Your task to perform on an android device: open app "DoorDash - Food Delivery" (install if not already installed) and enter user name: "Richard@outlook.com" and password: "informally" Image 0: 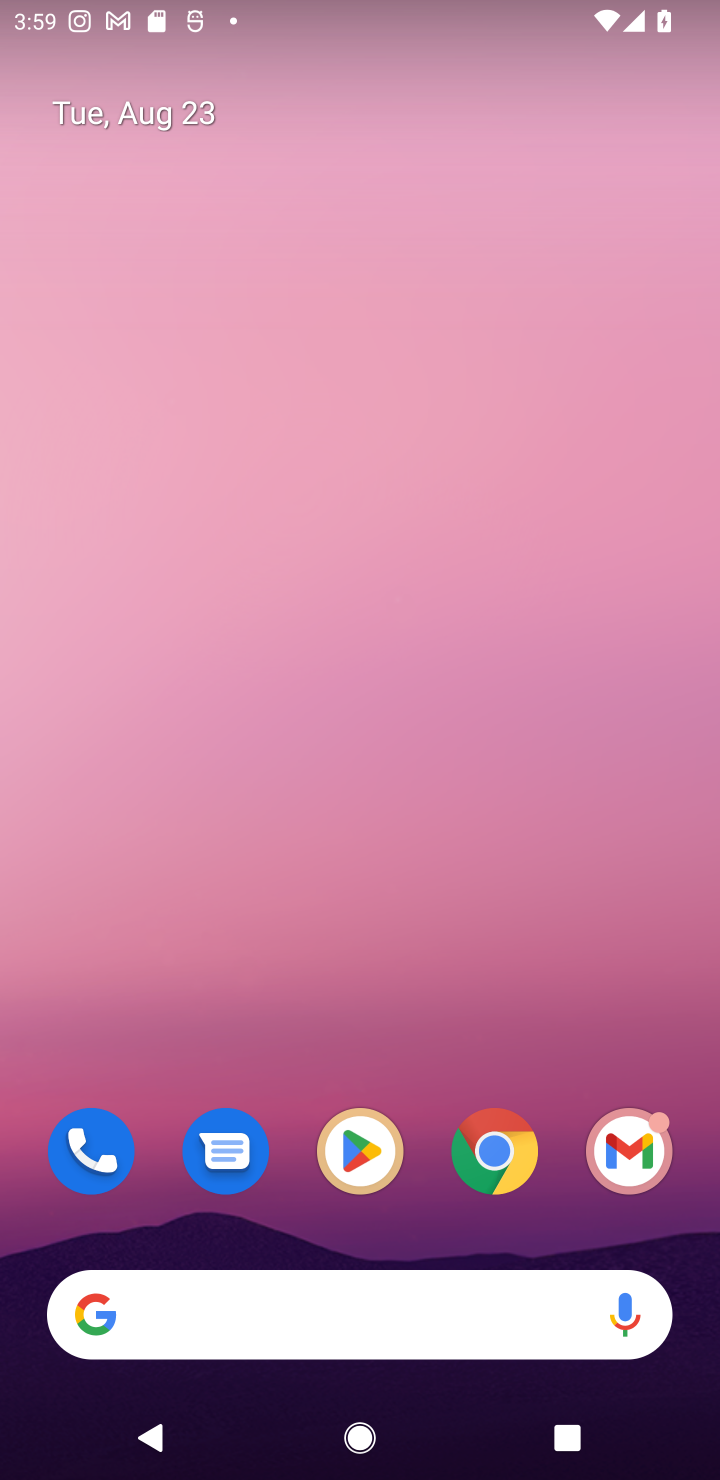
Step 0: click (357, 1160)
Your task to perform on an android device: open app "DoorDash - Food Delivery" (install if not already installed) and enter user name: "Richard@outlook.com" and password: "informally" Image 1: 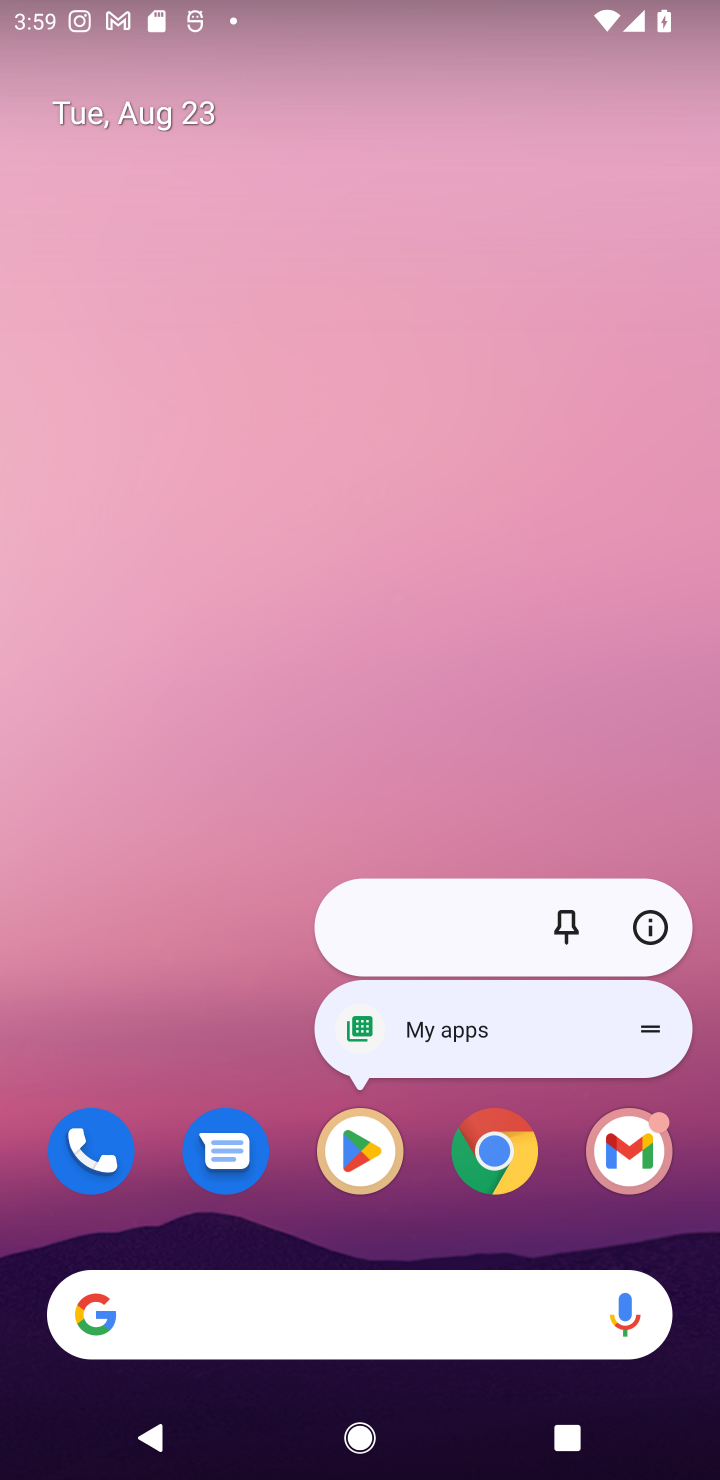
Step 1: click (355, 1165)
Your task to perform on an android device: open app "DoorDash - Food Delivery" (install if not already installed) and enter user name: "Richard@outlook.com" and password: "informally" Image 2: 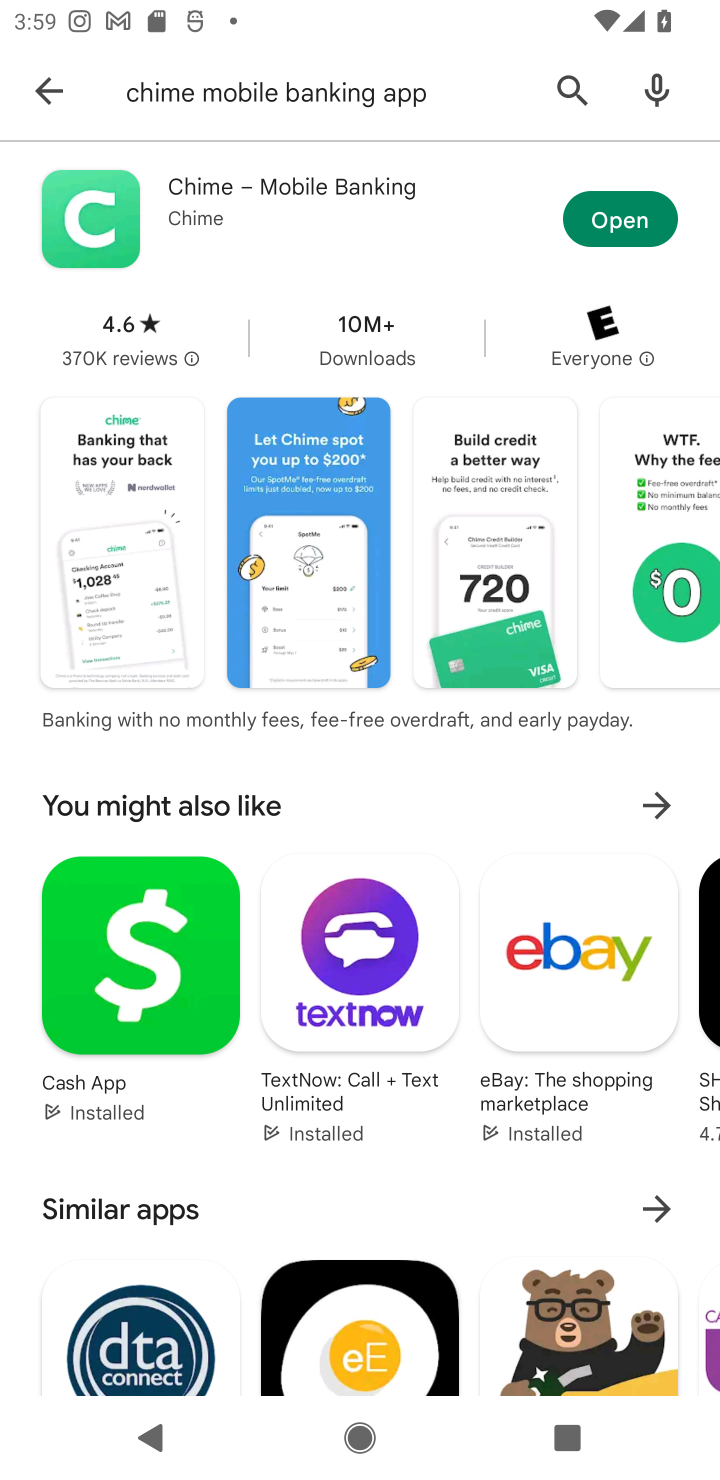
Step 2: click (574, 80)
Your task to perform on an android device: open app "DoorDash - Food Delivery" (install if not already installed) and enter user name: "Richard@outlook.com" and password: "informally" Image 3: 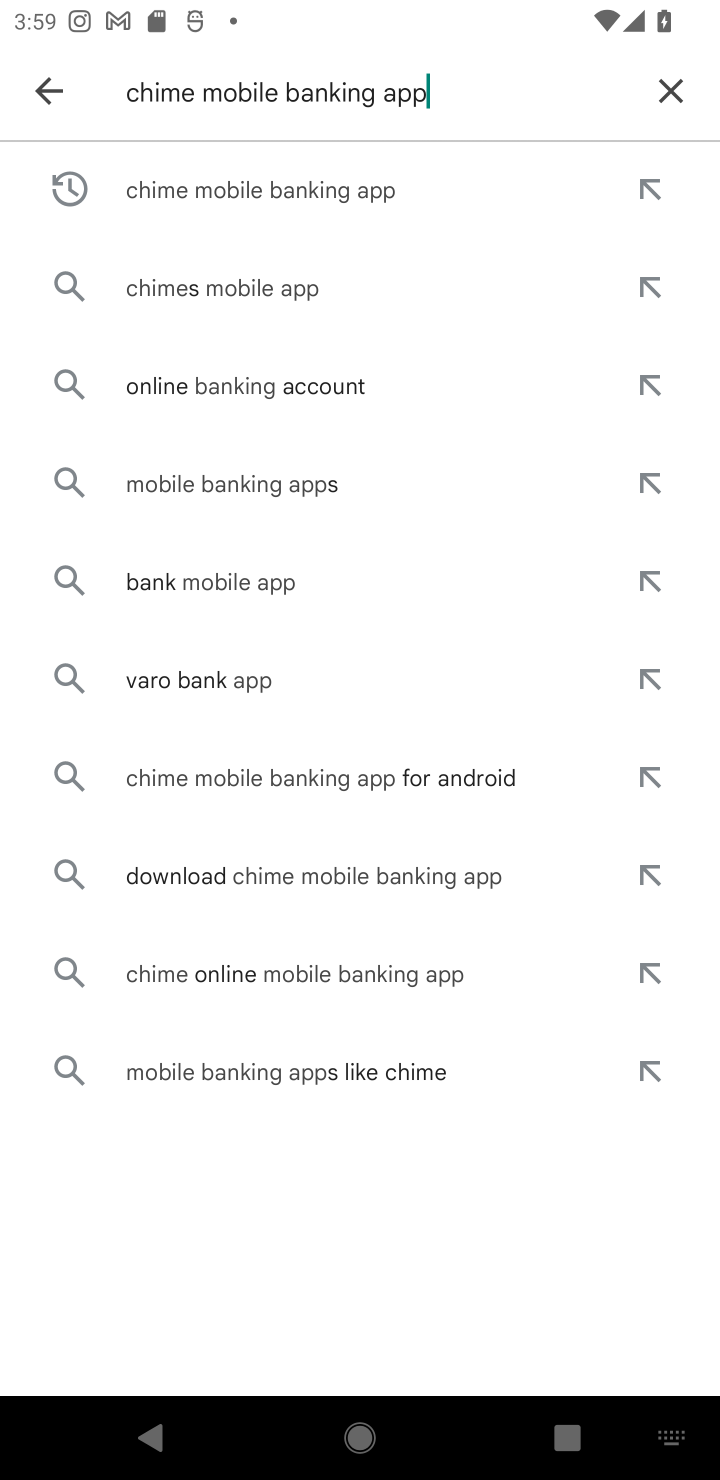
Step 3: click (668, 79)
Your task to perform on an android device: open app "DoorDash - Food Delivery" (install if not already installed) and enter user name: "Richard@outlook.com" and password: "informally" Image 4: 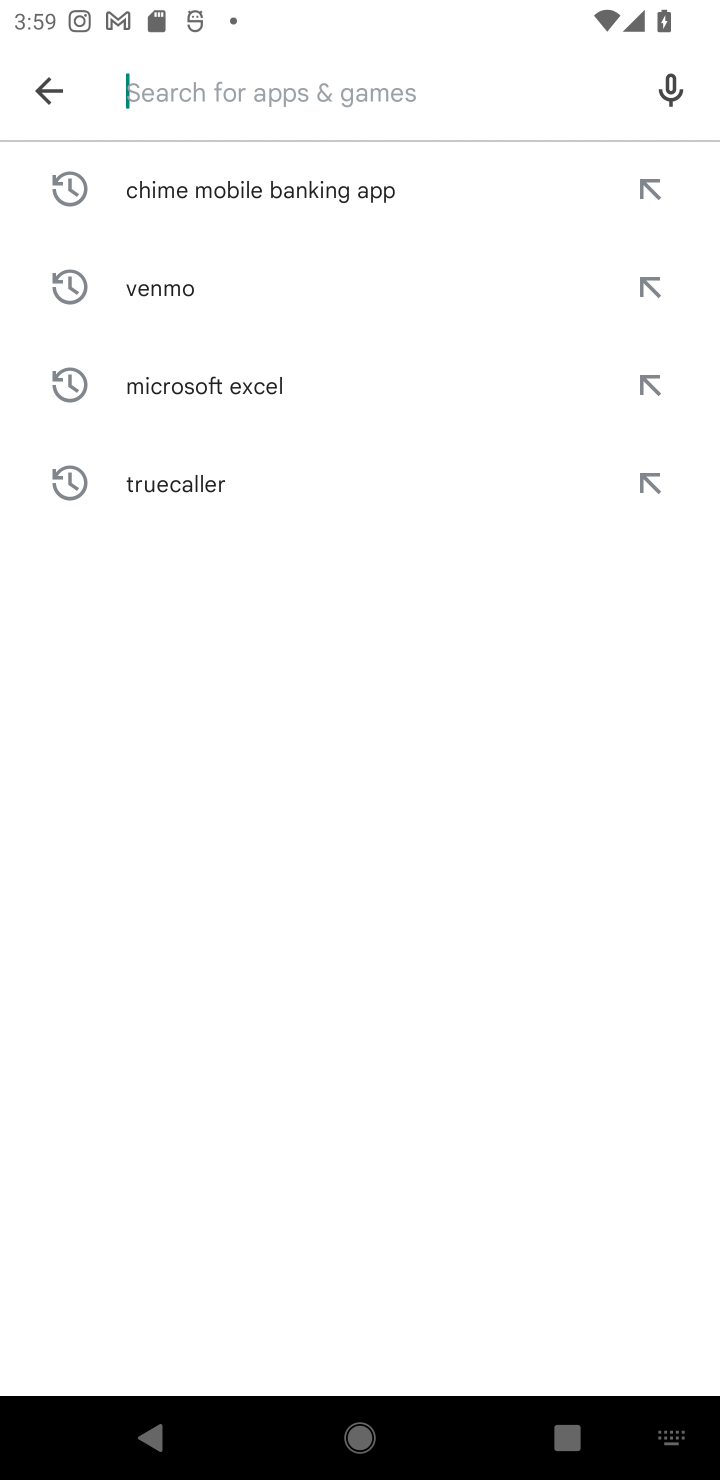
Step 4: type "DoorDash - Food Delivery"
Your task to perform on an android device: open app "DoorDash - Food Delivery" (install if not already installed) and enter user name: "Richard@outlook.com" and password: "informally" Image 5: 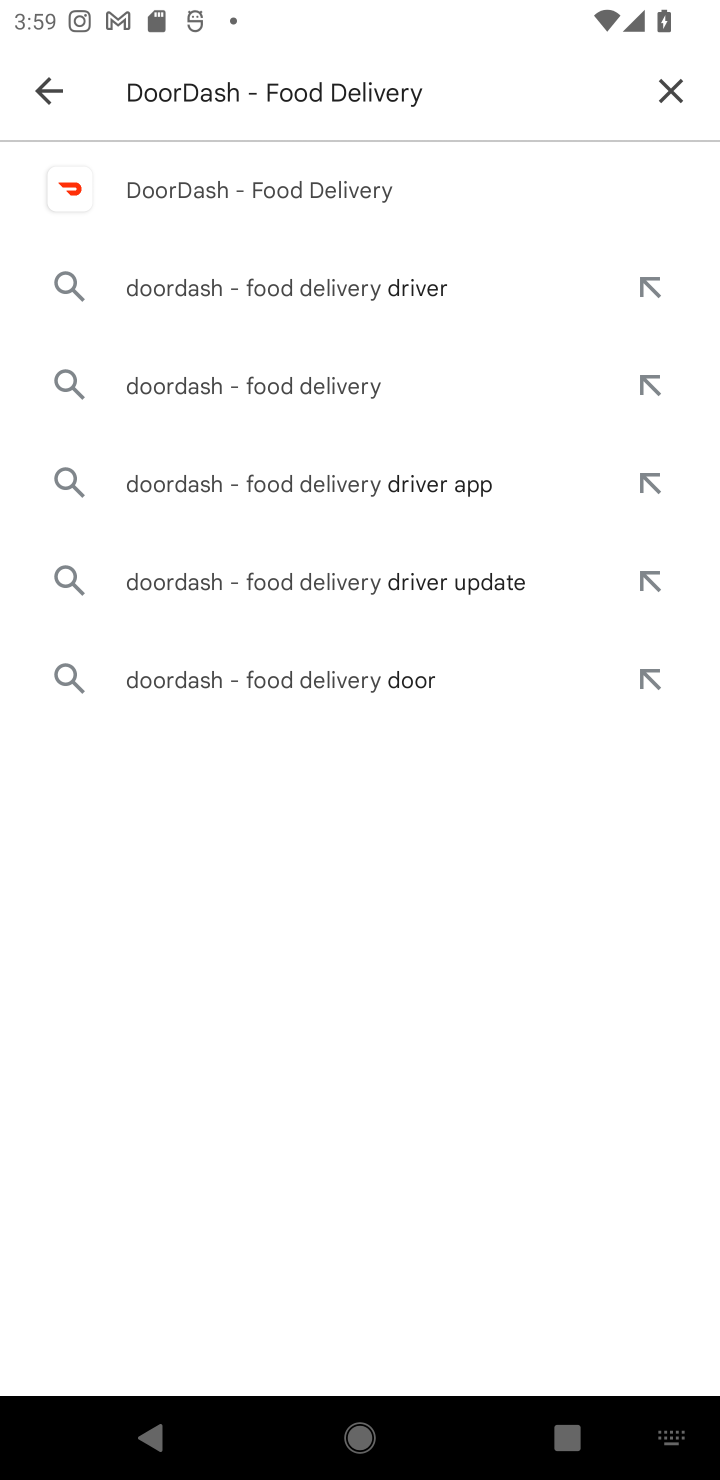
Step 5: click (319, 185)
Your task to perform on an android device: open app "DoorDash - Food Delivery" (install if not already installed) and enter user name: "Richard@outlook.com" and password: "informally" Image 6: 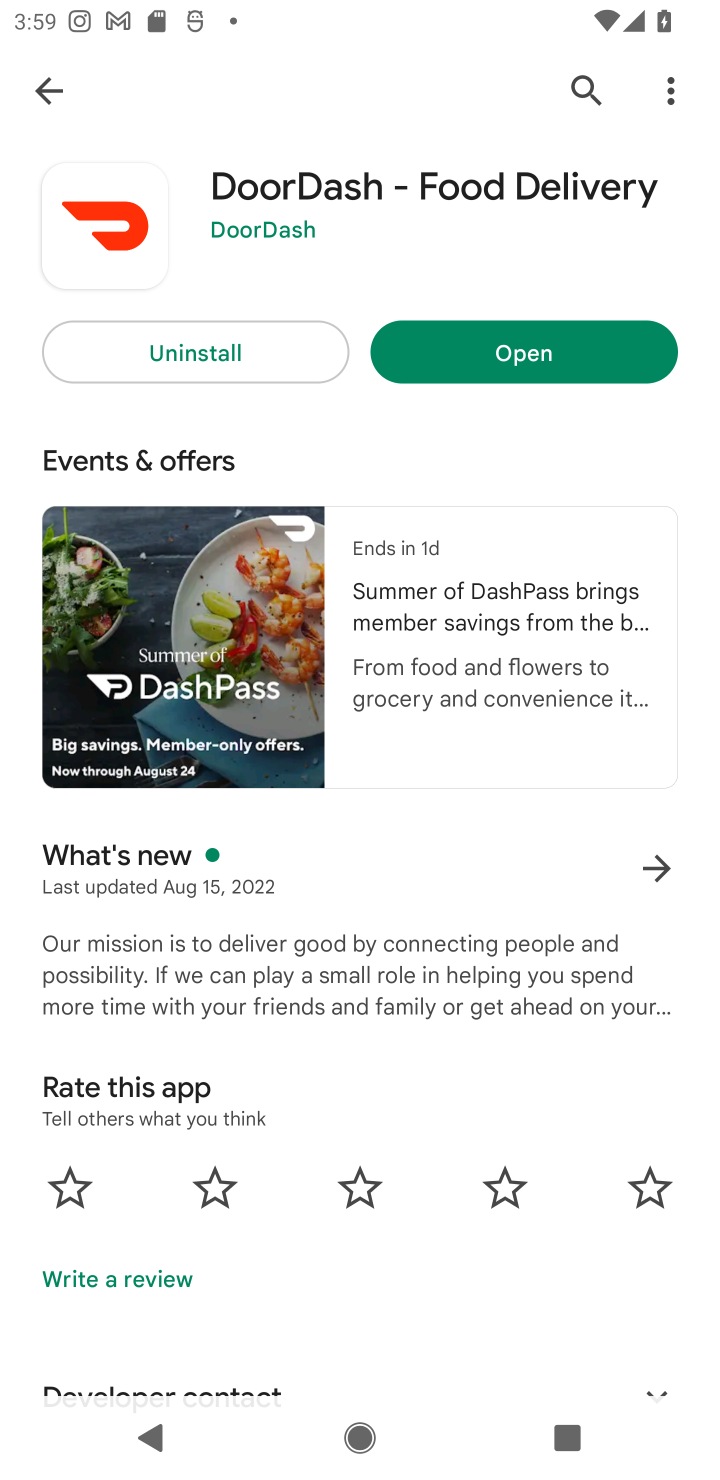
Step 6: click (548, 350)
Your task to perform on an android device: open app "DoorDash - Food Delivery" (install if not already installed) and enter user name: "Richard@outlook.com" and password: "informally" Image 7: 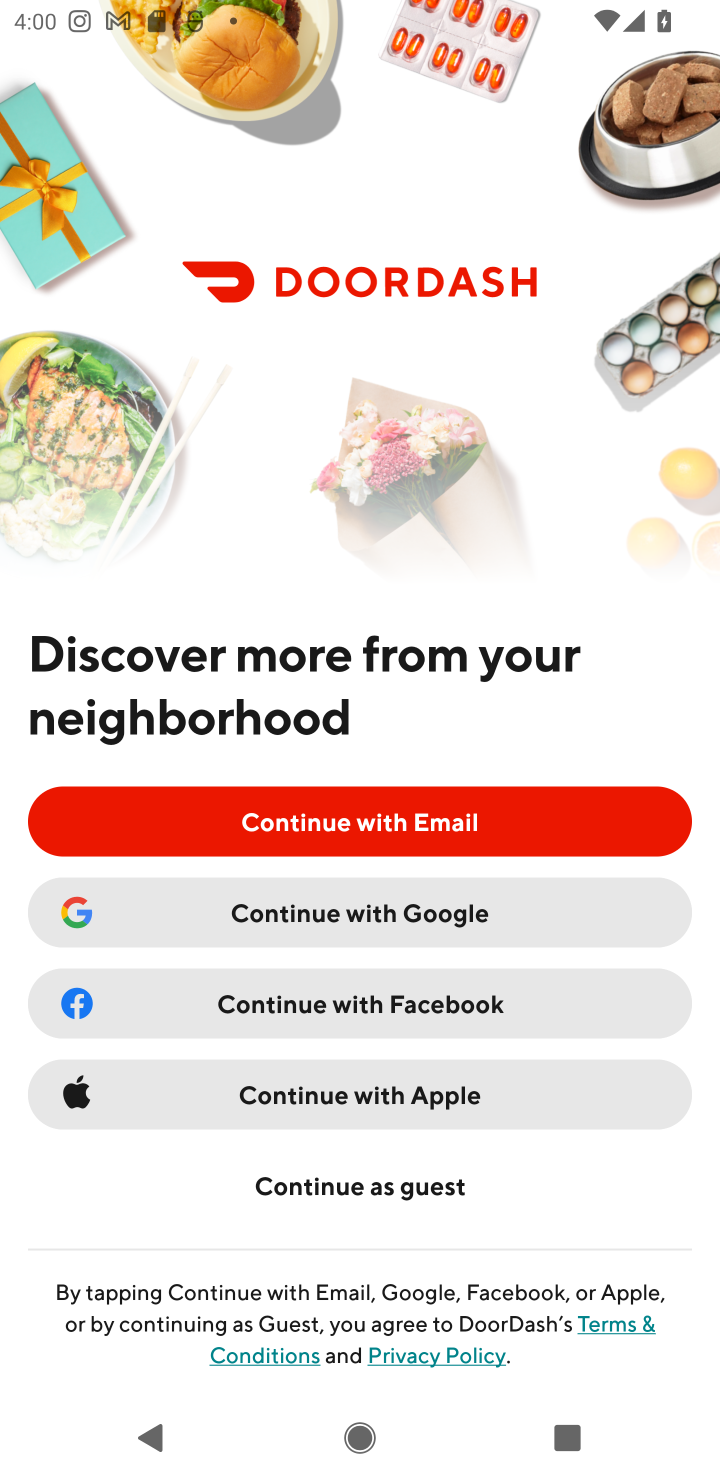
Step 7: click (421, 809)
Your task to perform on an android device: open app "DoorDash - Food Delivery" (install if not already installed) and enter user name: "Richard@outlook.com" and password: "informally" Image 8: 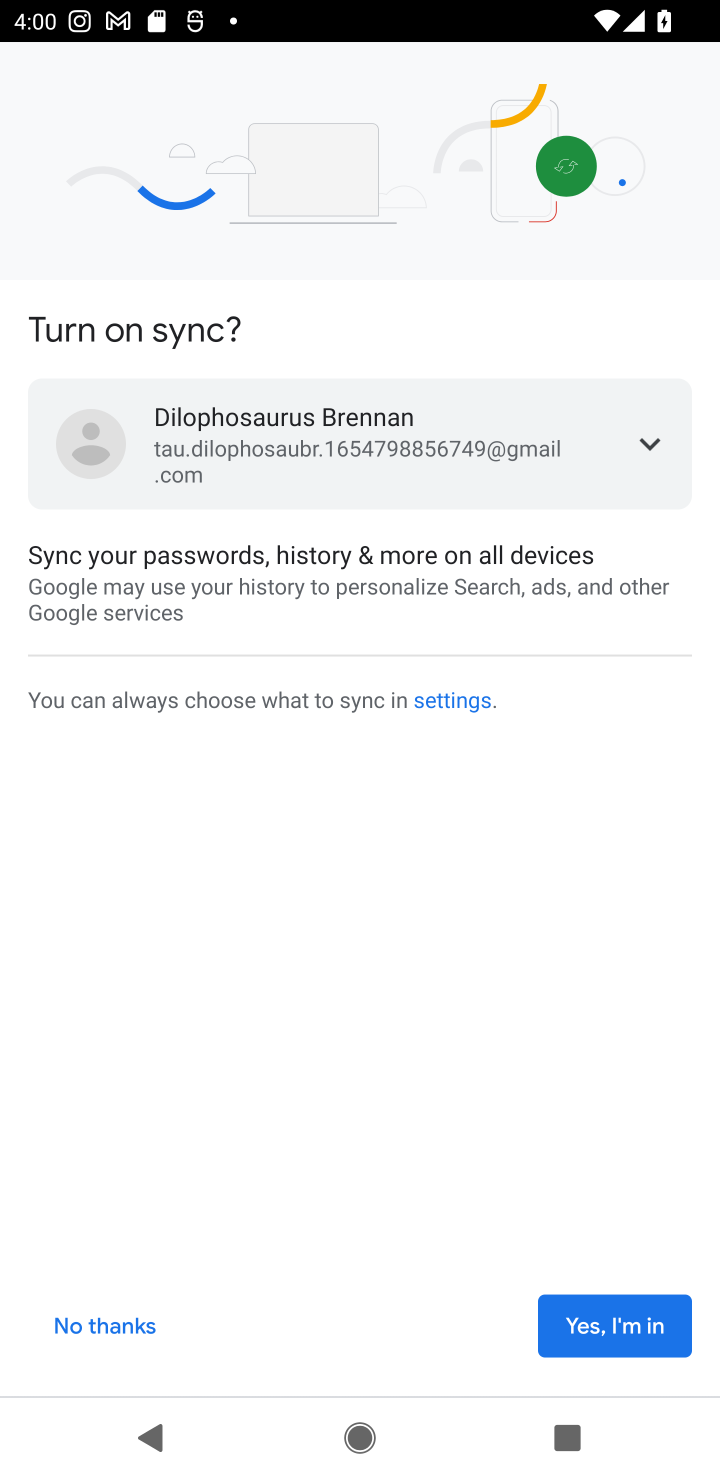
Step 8: task complete